Your task to perform on an android device: Show me the alarms in the clock app Image 0: 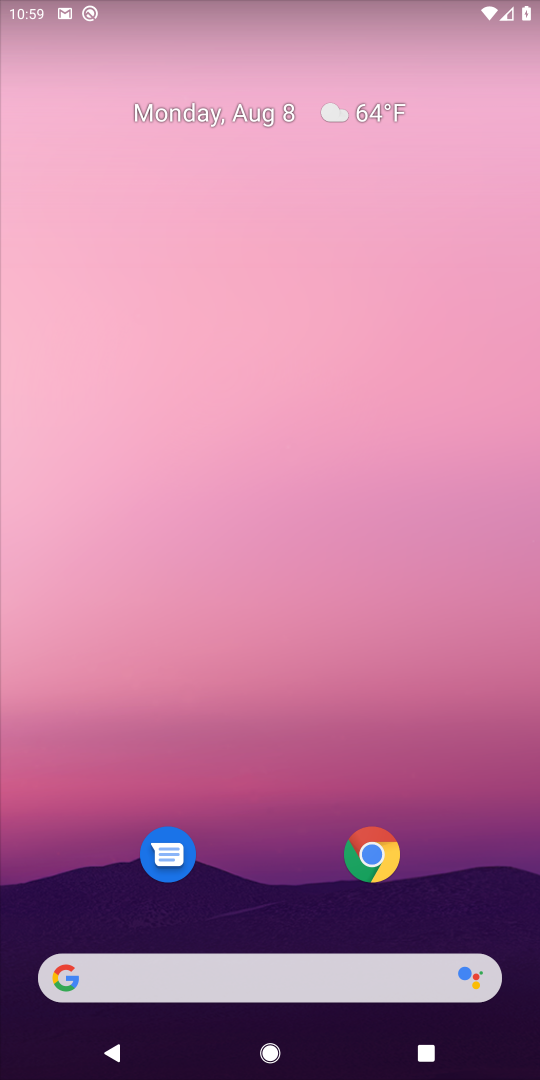
Step 0: drag from (299, 923) to (361, 57)
Your task to perform on an android device: Show me the alarms in the clock app Image 1: 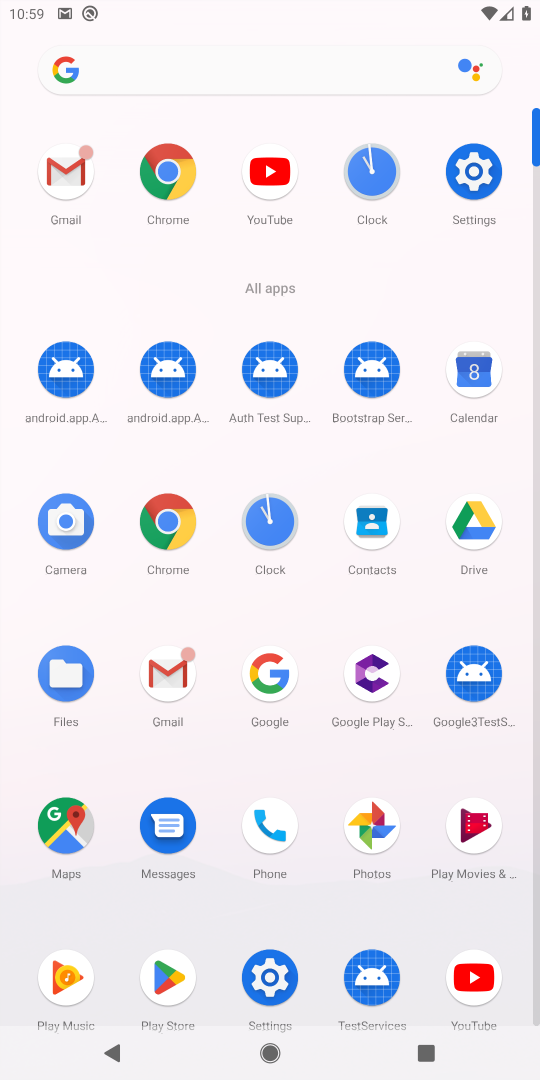
Step 1: click (362, 173)
Your task to perform on an android device: Show me the alarms in the clock app Image 2: 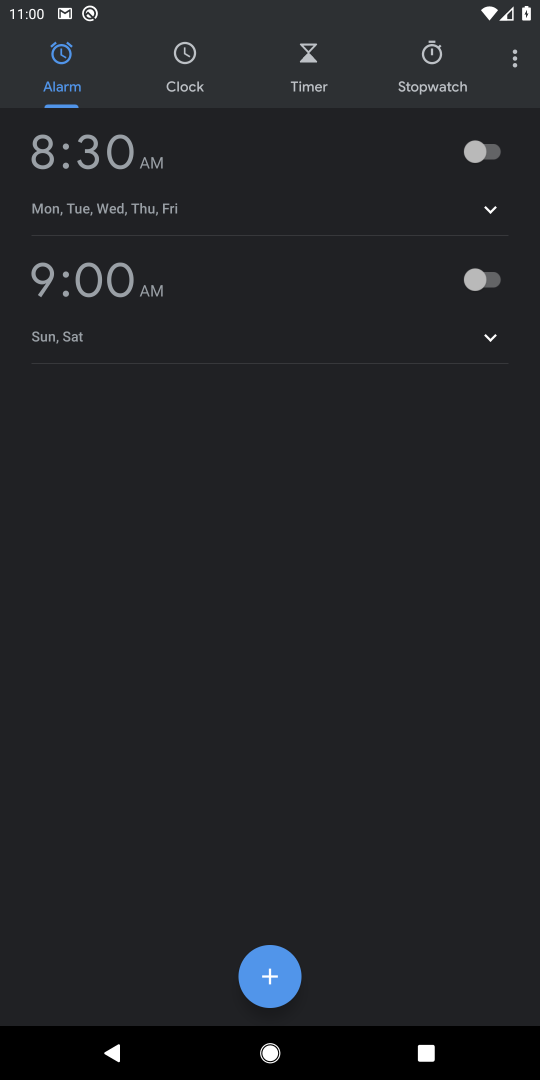
Step 2: task complete